Your task to perform on an android device: Open Google Chrome Image 0: 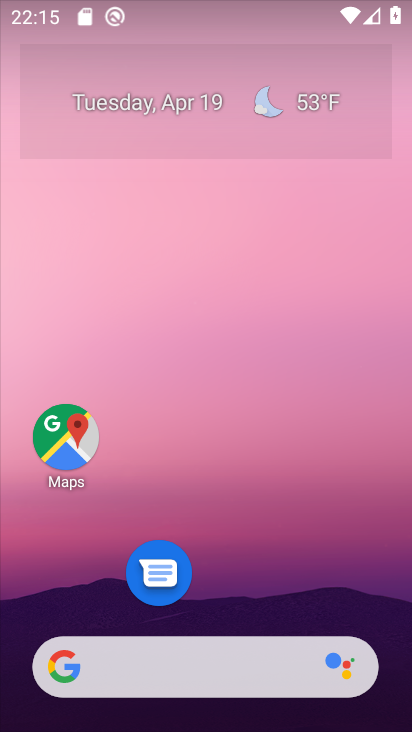
Step 0: drag from (232, 605) to (247, 129)
Your task to perform on an android device: Open Google Chrome Image 1: 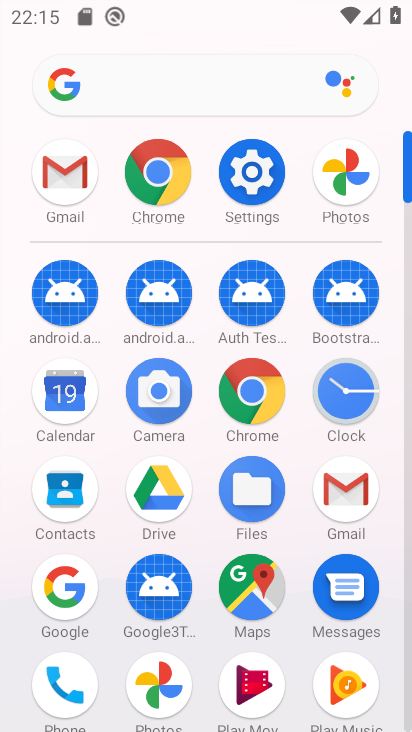
Step 1: click (253, 388)
Your task to perform on an android device: Open Google Chrome Image 2: 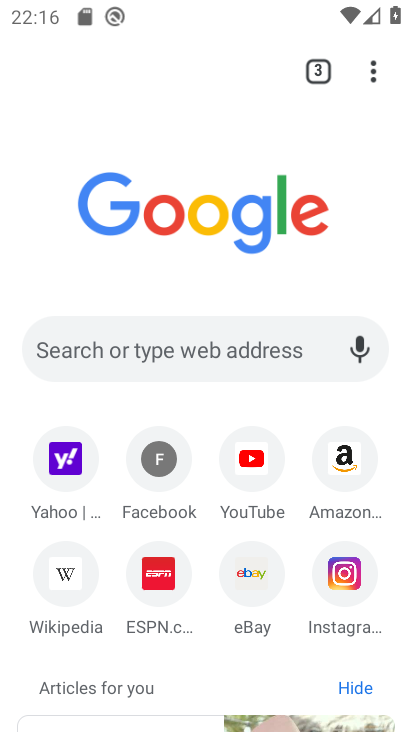
Step 2: click (373, 66)
Your task to perform on an android device: Open Google Chrome Image 3: 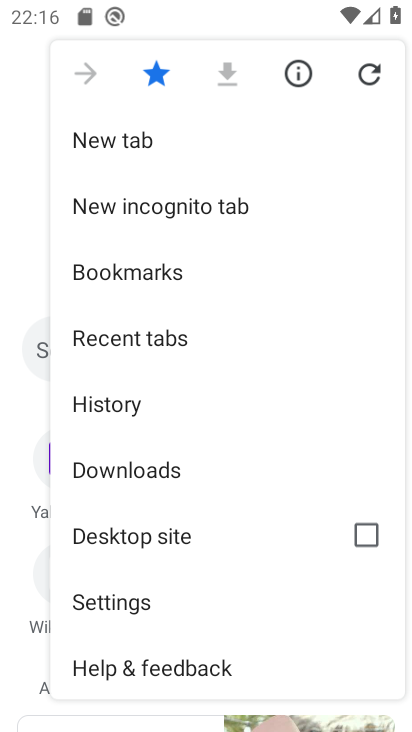
Step 3: click (23, 201)
Your task to perform on an android device: Open Google Chrome Image 4: 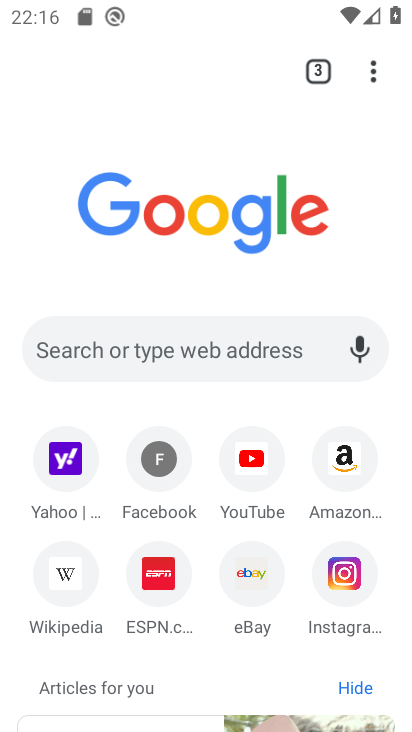
Step 4: task complete